Your task to perform on an android device: Show me the alarms in the clock app Image 0: 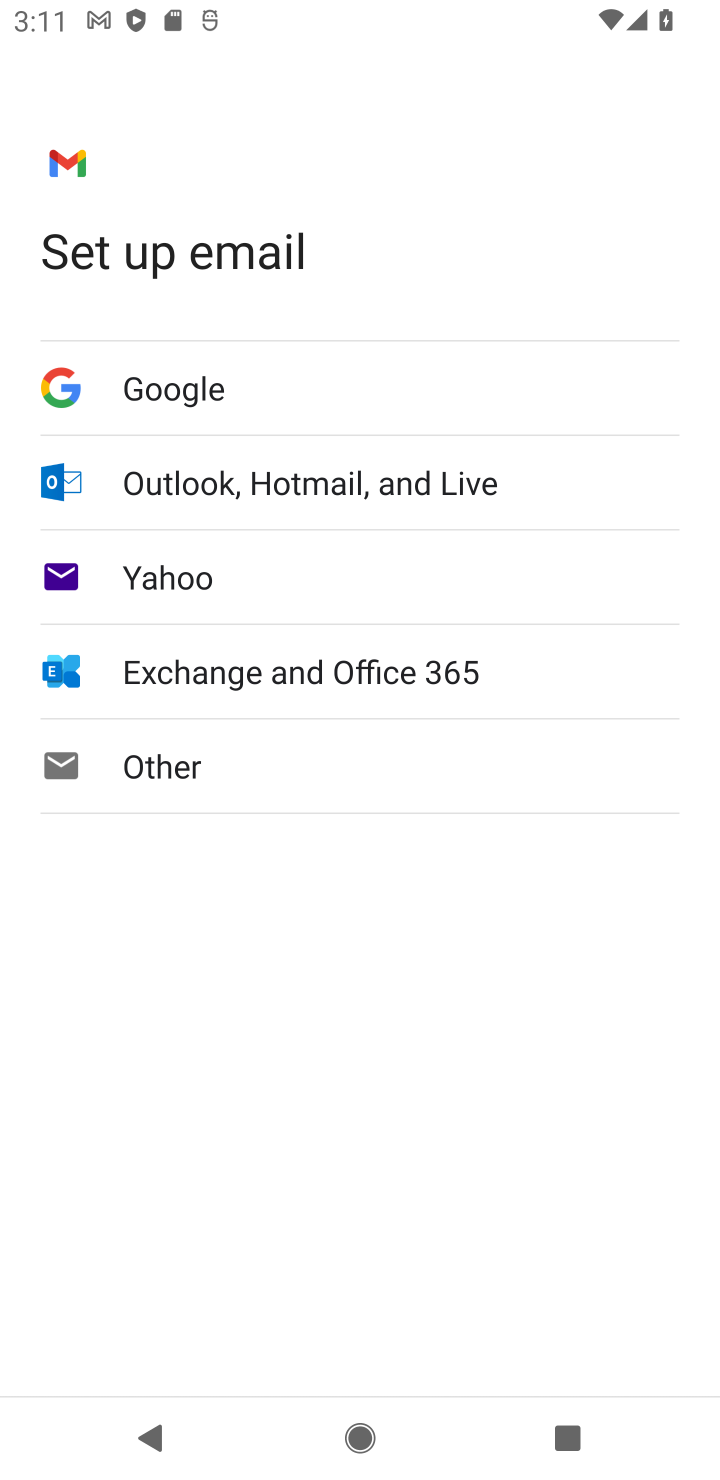
Step 0: press home button
Your task to perform on an android device: Show me the alarms in the clock app Image 1: 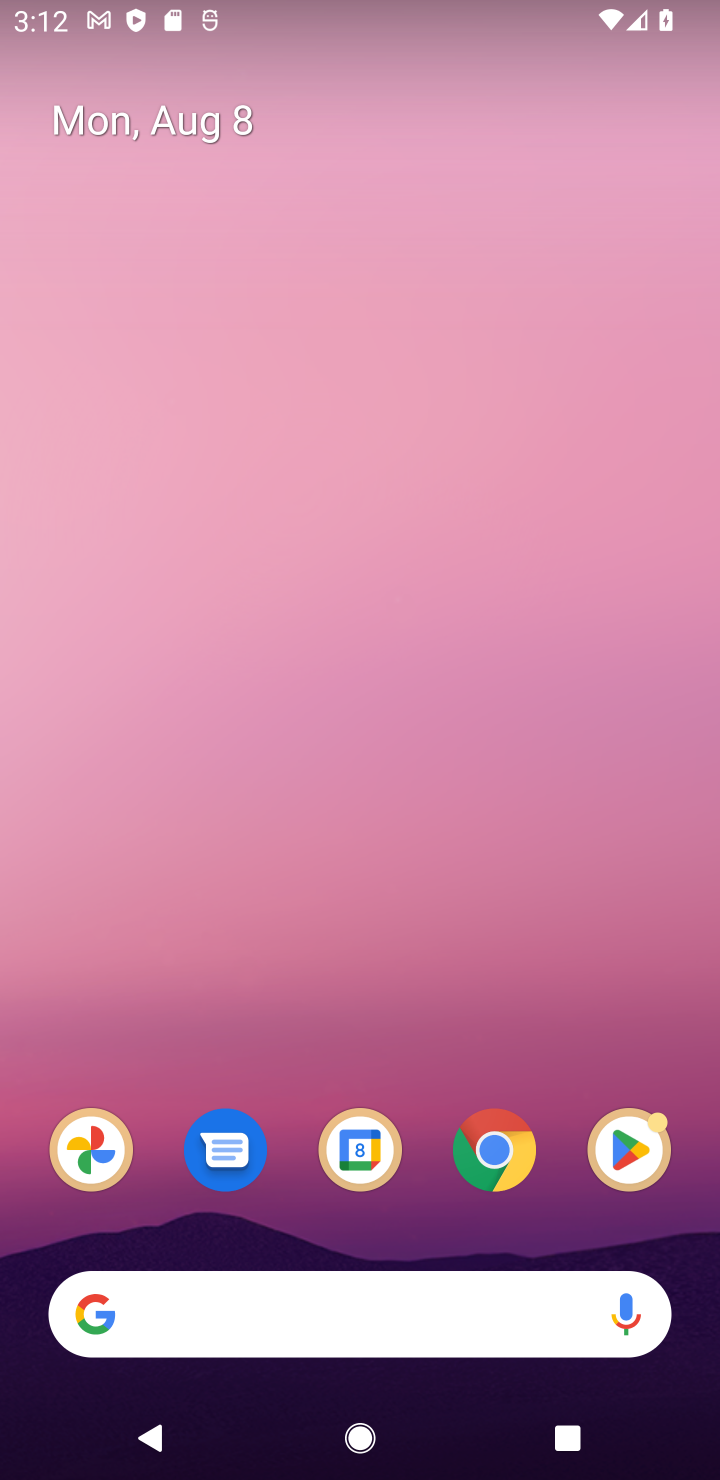
Step 1: click (351, 133)
Your task to perform on an android device: Show me the alarms in the clock app Image 2: 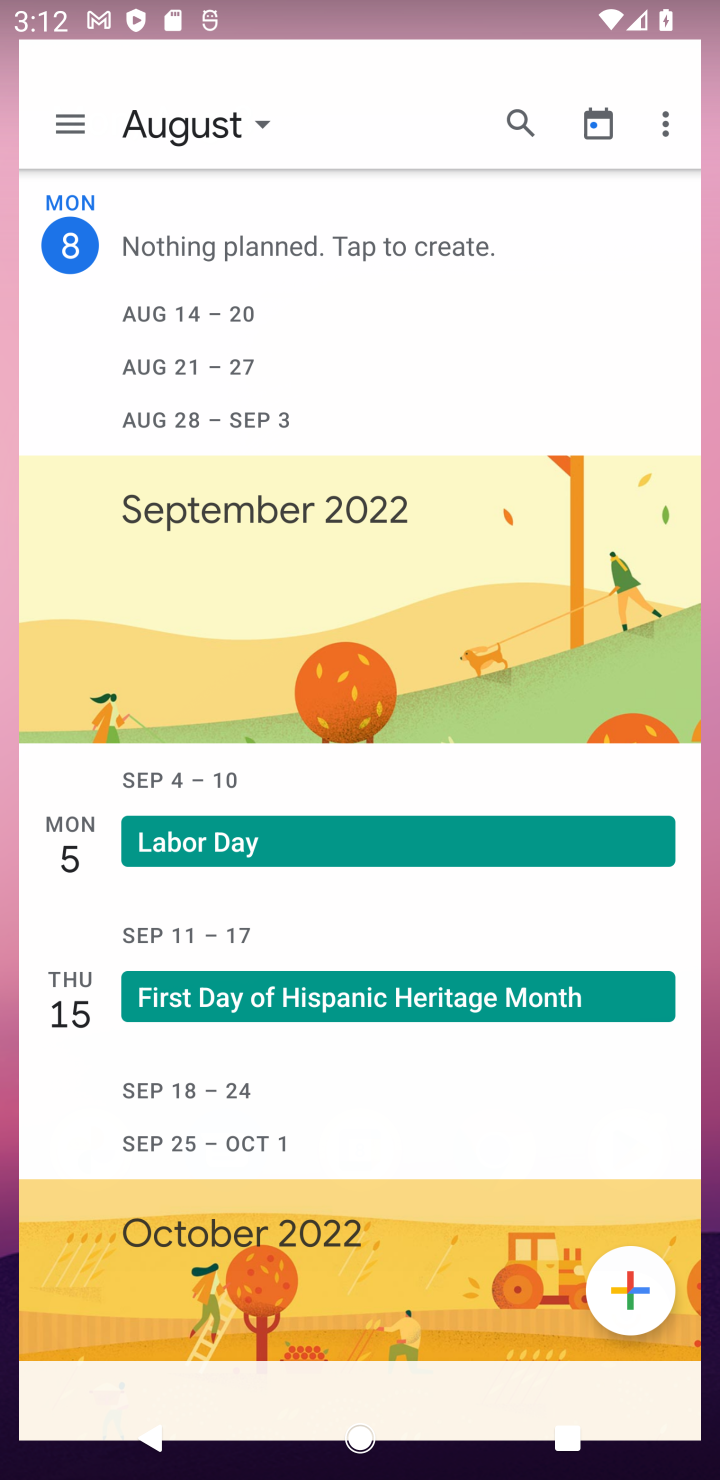
Step 2: task complete